Your task to perform on an android device: turn on airplane mode Image 0: 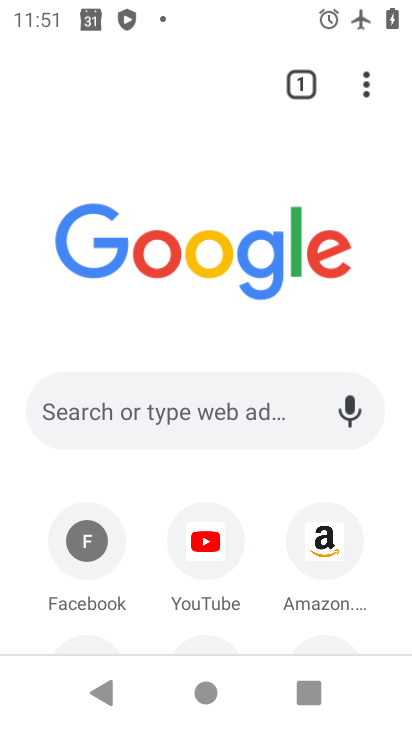
Step 0: task complete